Your task to perform on an android device: set default search engine in the chrome app Image 0: 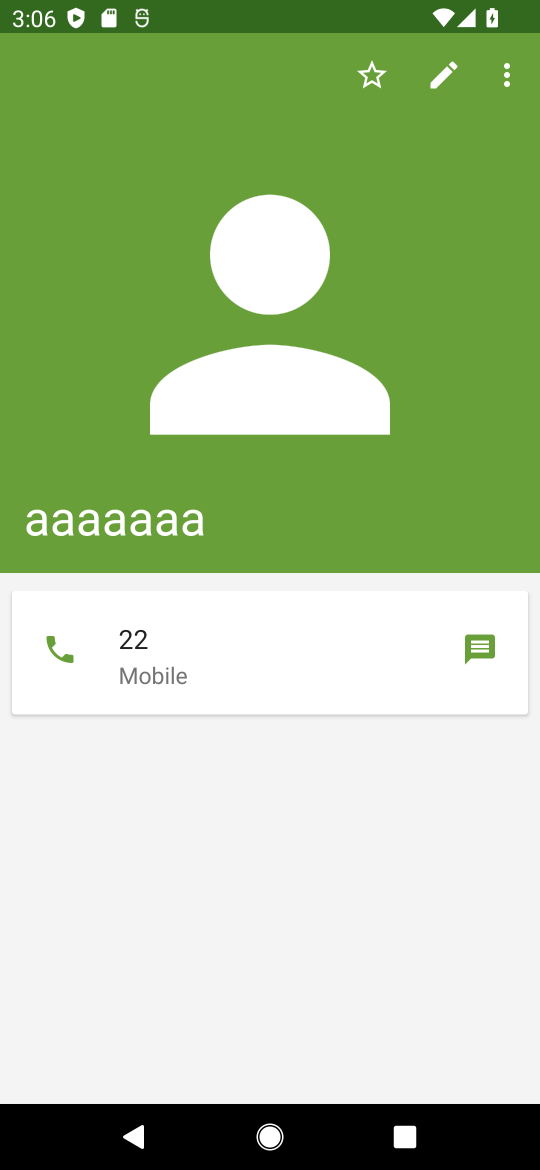
Step 0: press home button
Your task to perform on an android device: set default search engine in the chrome app Image 1: 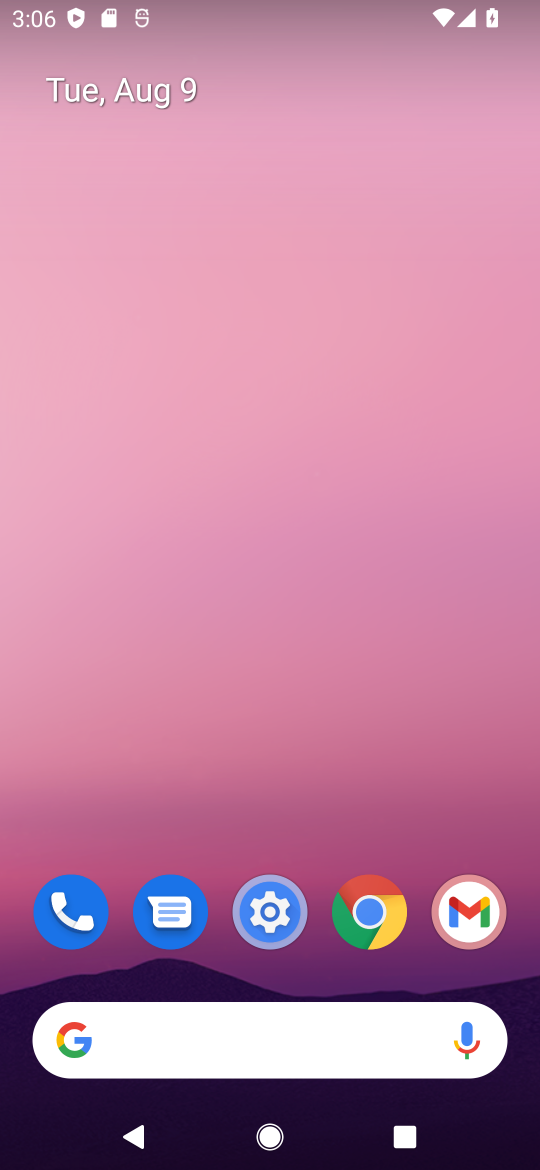
Step 1: click (372, 909)
Your task to perform on an android device: set default search engine in the chrome app Image 2: 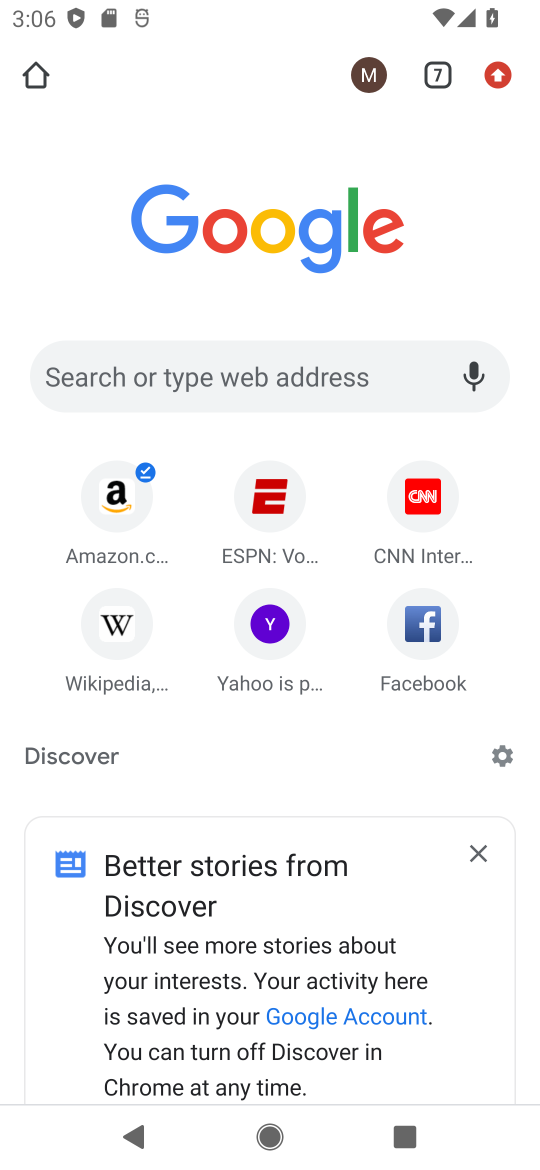
Step 2: click (499, 63)
Your task to perform on an android device: set default search engine in the chrome app Image 3: 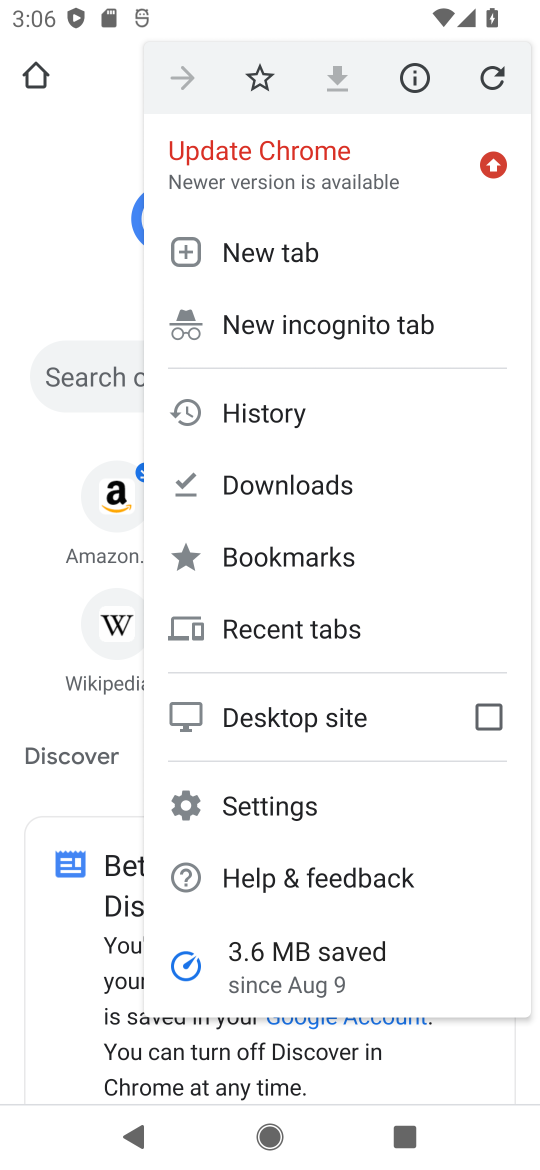
Step 3: click (264, 806)
Your task to perform on an android device: set default search engine in the chrome app Image 4: 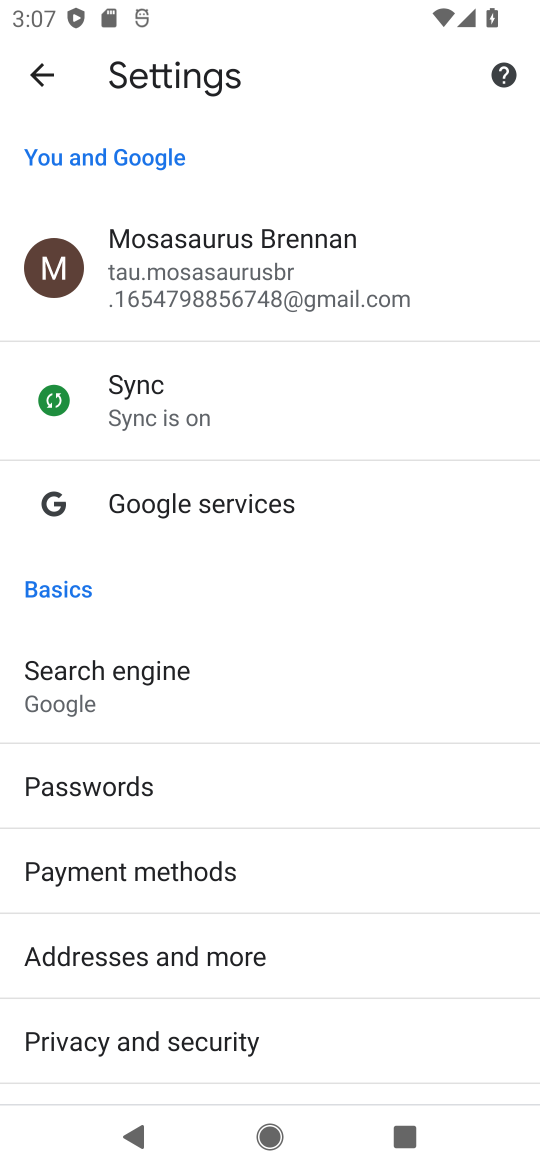
Step 4: drag from (356, 956) to (345, 470)
Your task to perform on an android device: set default search engine in the chrome app Image 5: 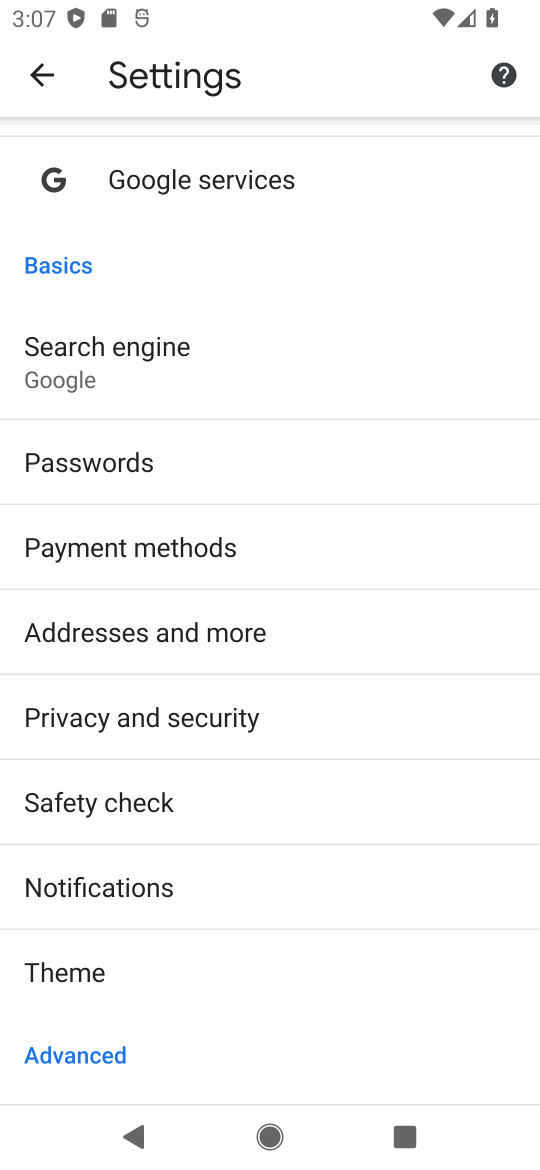
Step 5: drag from (265, 958) to (256, 397)
Your task to perform on an android device: set default search engine in the chrome app Image 6: 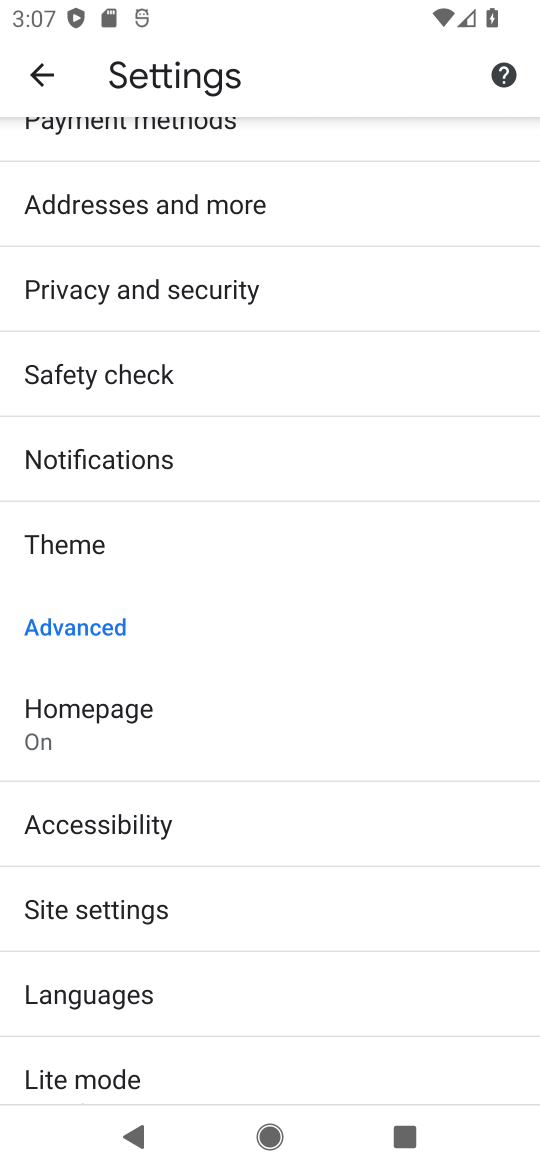
Step 6: drag from (326, 313) to (320, 903)
Your task to perform on an android device: set default search engine in the chrome app Image 7: 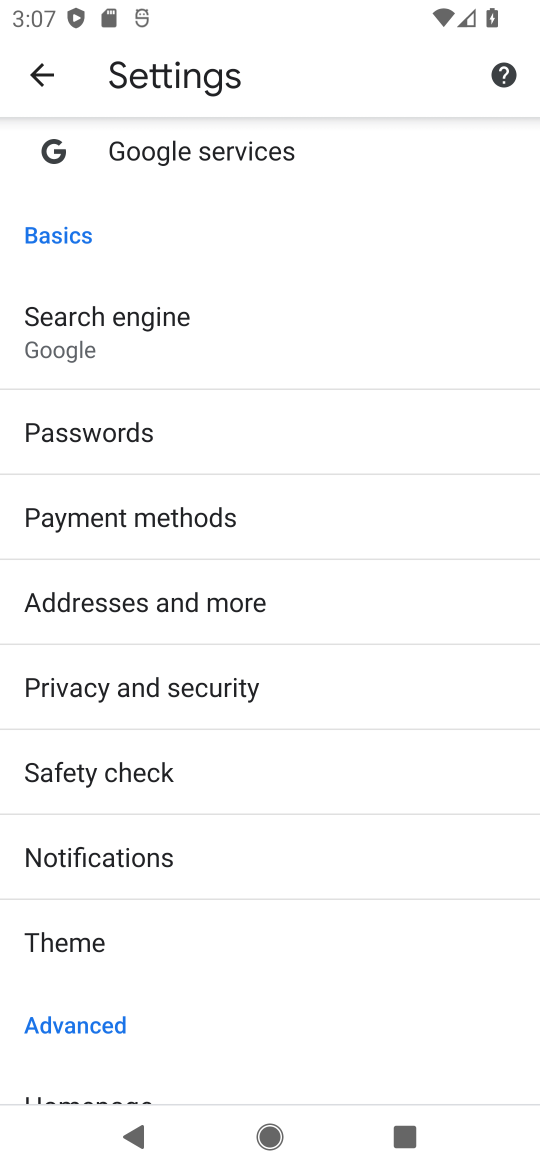
Step 7: click (94, 313)
Your task to perform on an android device: set default search engine in the chrome app Image 8: 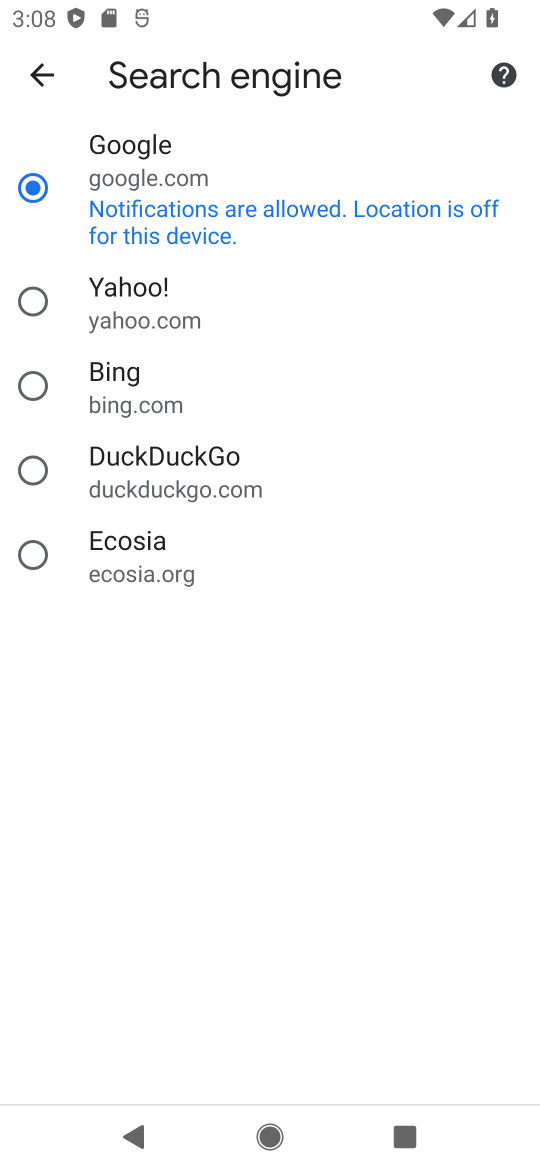
Step 8: task complete